Your task to perform on an android device: Go to eBay Image 0: 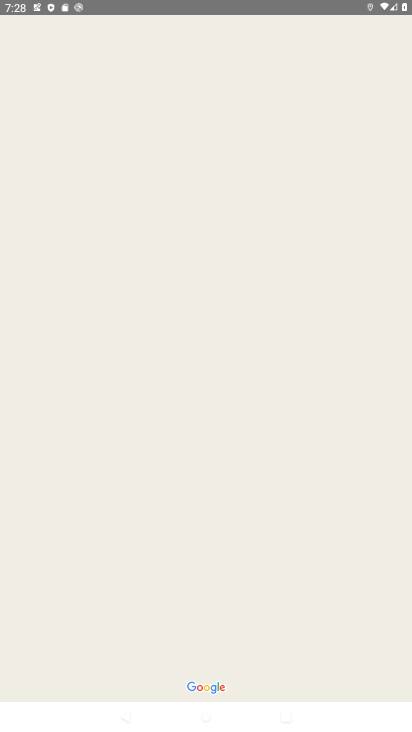
Step 0: click (138, 629)
Your task to perform on an android device: Go to eBay Image 1: 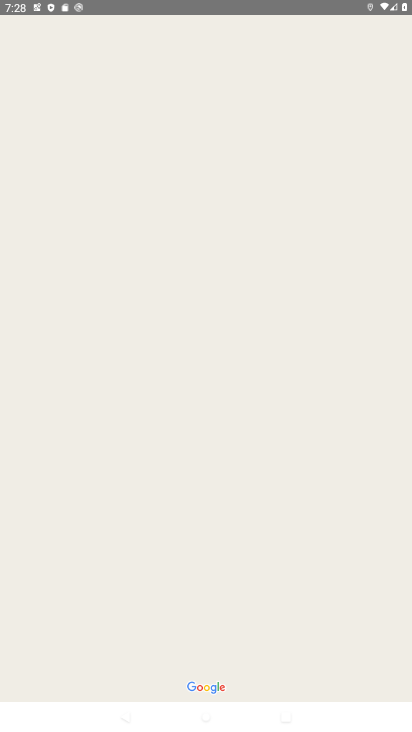
Step 1: press home button
Your task to perform on an android device: Go to eBay Image 2: 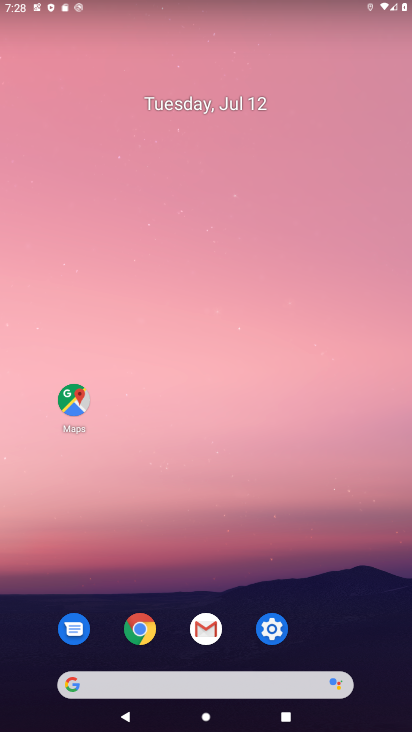
Step 2: click (139, 626)
Your task to perform on an android device: Go to eBay Image 3: 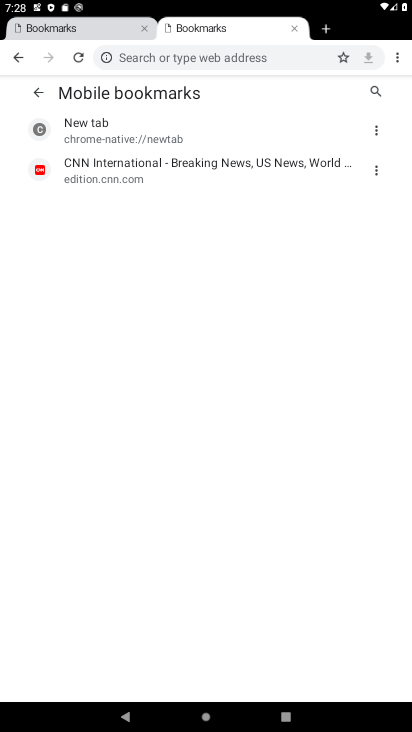
Step 3: click (396, 63)
Your task to perform on an android device: Go to eBay Image 4: 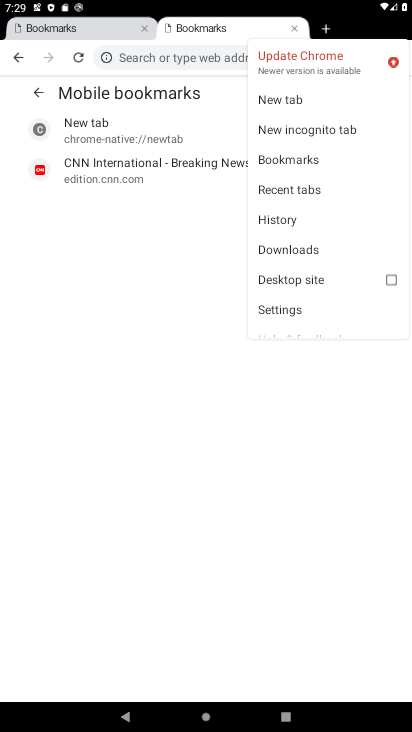
Step 4: click (299, 93)
Your task to perform on an android device: Go to eBay Image 5: 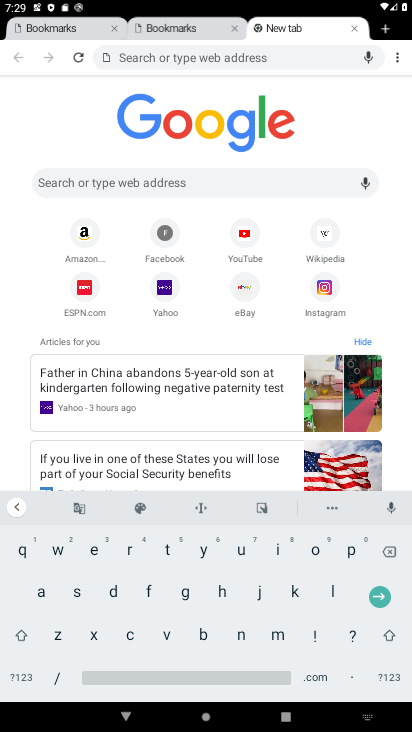
Step 5: click (239, 284)
Your task to perform on an android device: Go to eBay Image 6: 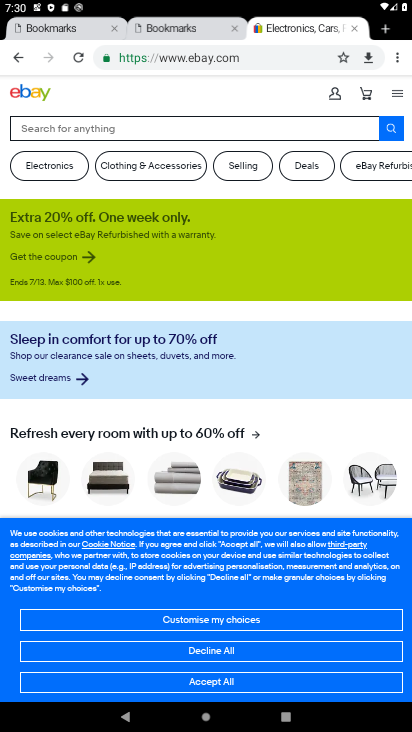
Step 6: task complete